Your task to perform on an android device: turn off javascript in the chrome app Image 0: 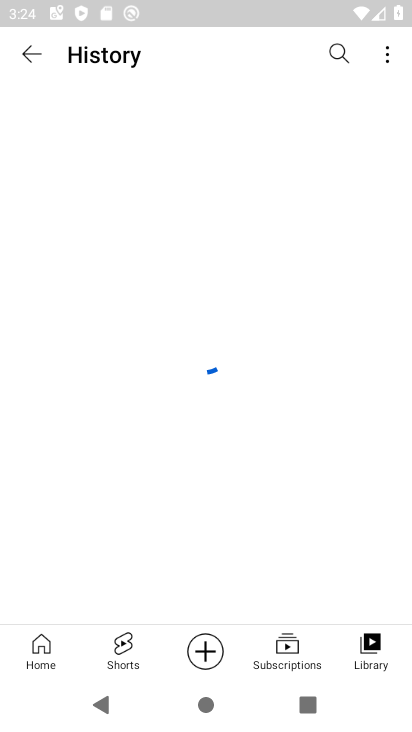
Step 0: click (128, 547)
Your task to perform on an android device: turn off javascript in the chrome app Image 1: 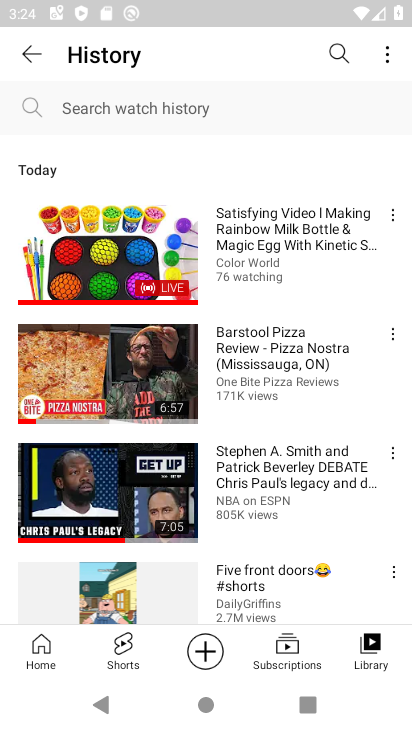
Step 1: press home button
Your task to perform on an android device: turn off javascript in the chrome app Image 2: 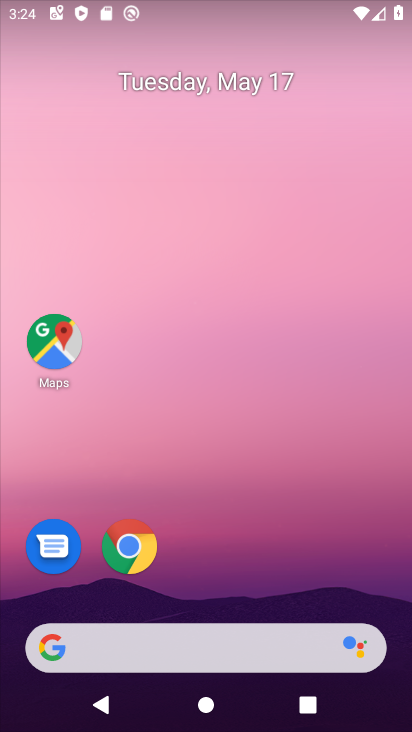
Step 2: click (124, 547)
Your task to perform on an android device: turn off javascript in the chrome app Image 3: 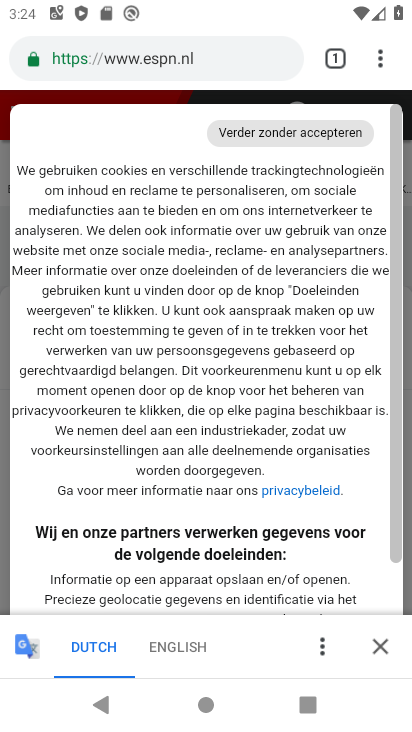
Step 3: click (380, 62)
Your task to perform on an android device: turn off javascript in the chrome app Image 4: 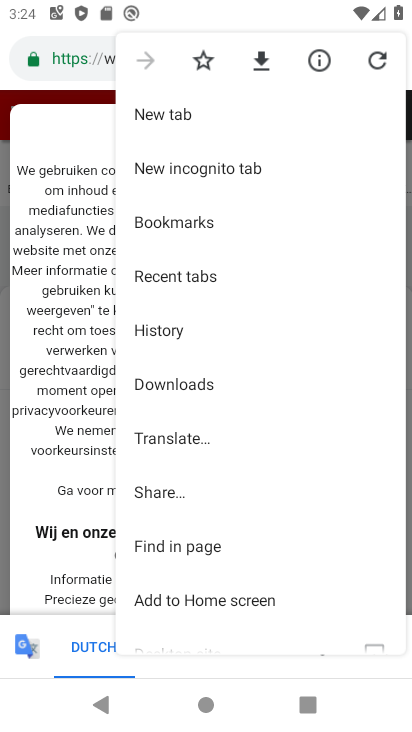
Step 4: drag from (183, 540) to (256, 142)
Your task to perform on an android device: turn off javascript in the chrome app Image 5: 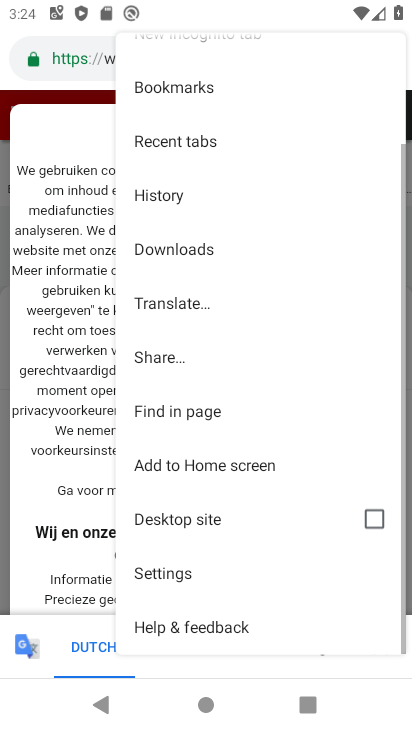
Step 5: click (173, 570)
Your task to perform on an android device: turn off javascript in the chrome app Image 6: 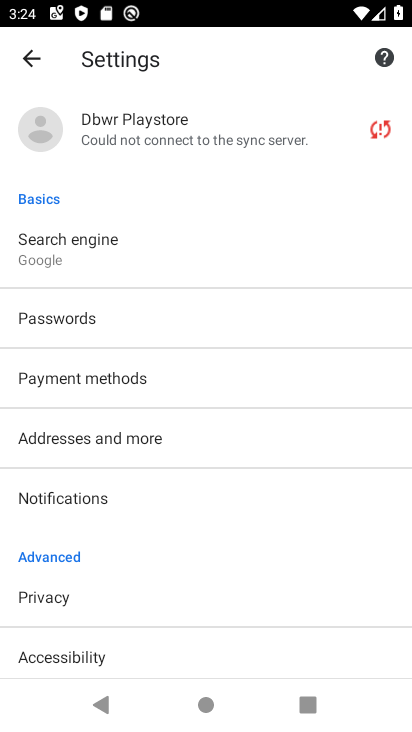
Step 6: drag from (54, 627) to (118, 252)
Your task to perform on an android device: turn off javascript in the chrome app Image 7: 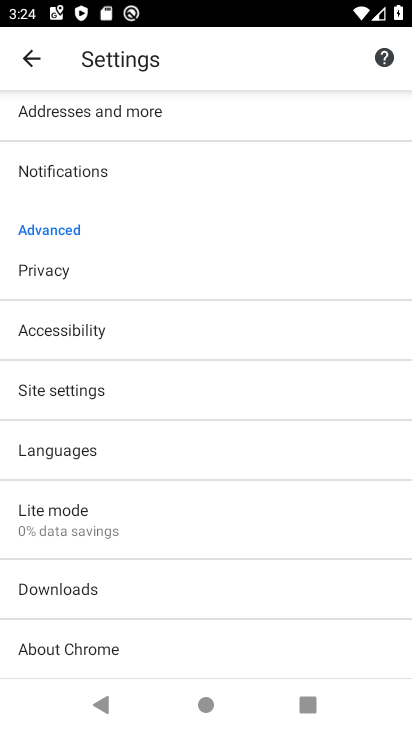
Step 7: click (86, 401)
Your task to perform on an android device: turn off javascript in the chrome app Image 8: 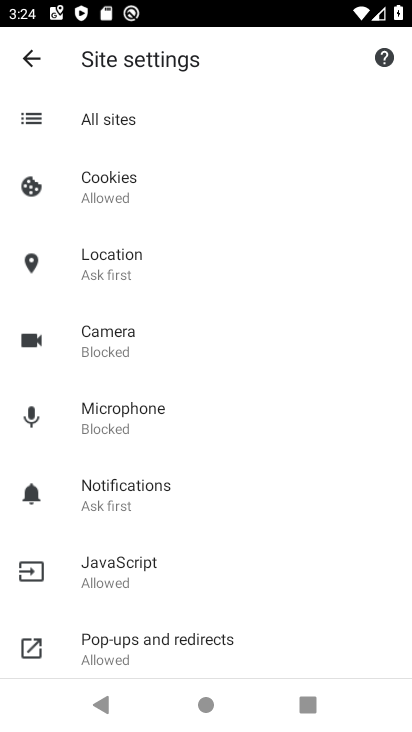
Step 8: click (141, 570)
Your task to perform on an android device: turn off javascript in the chrome app Image 9: 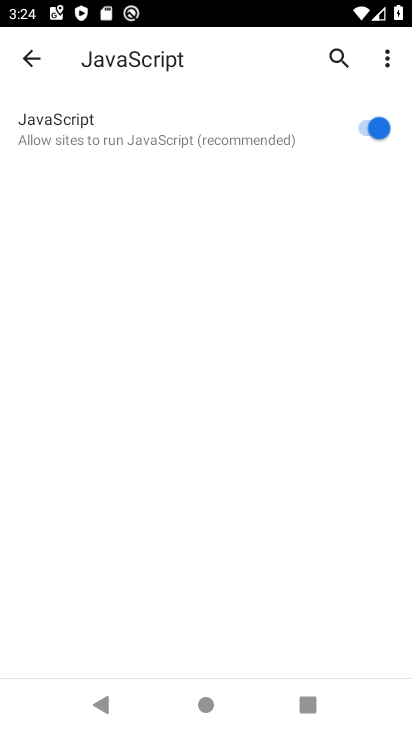
Step 9: click (361, 133)
Your task to perform on an android device: turn off javascript in the chrome app Image 10: 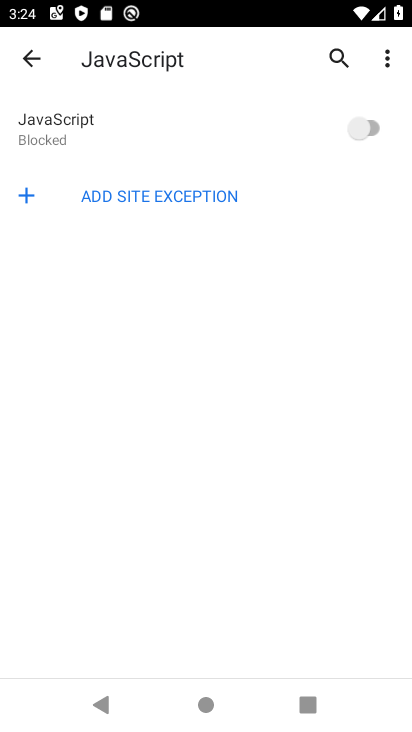
Step 10: task complete